Your task to perform on an android device: turn off translation in the chrome app Image 0: 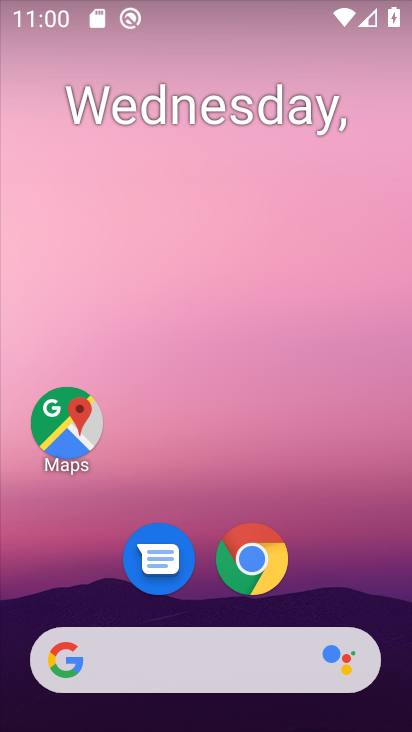
Step 0: press home button
Your task to perform on an android device: turn off translation in the chrome app Image 1: 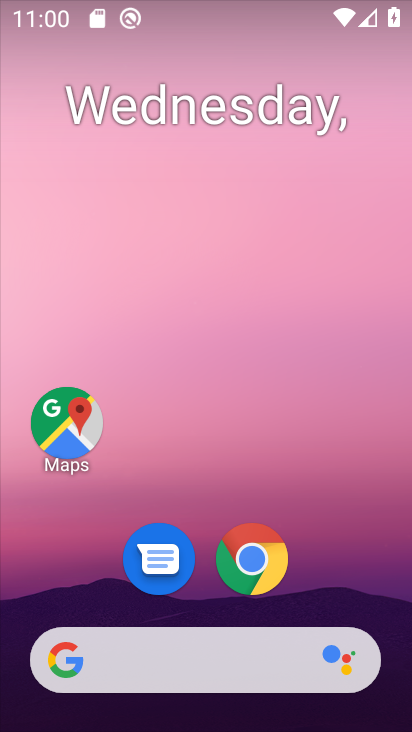
Step 1: drag from (221, 681) to (231, 257)
Your task to perform on an android device: turn off translation in the chrome app Image 2: 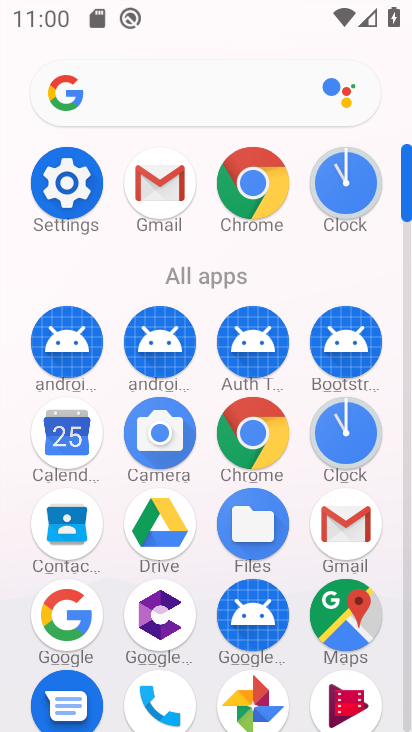
Step 2: click (277, 195)
Your task to perform on an android device: turn off translation in the chrome app Image 3: 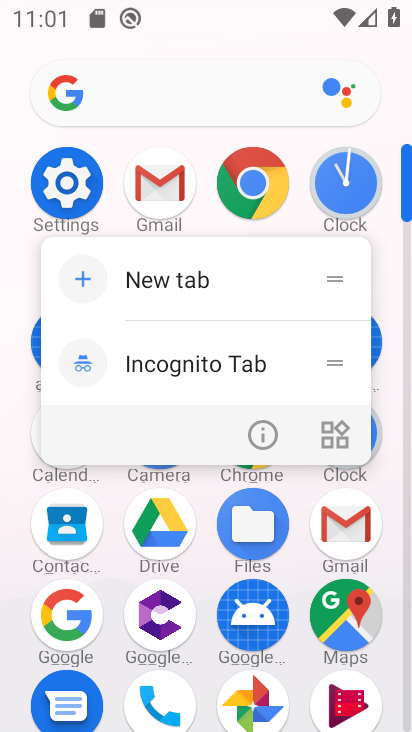
Step 3: click (257, 191)
Your task to perform on an android device: turn off translation in the chrome app Image 4: 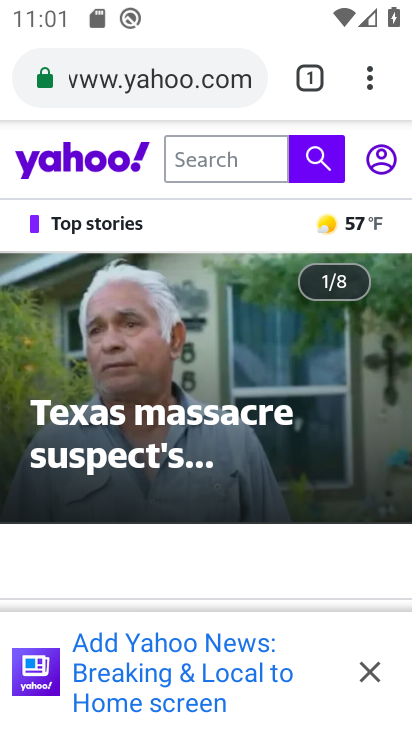
Step 4: click (375, 91)
Your task to perform on an android device: turn off translation in the chrome app Image 5: 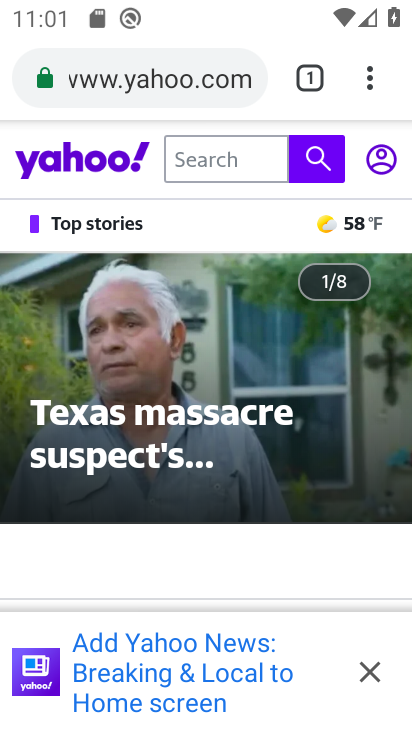
Step 5: click (374, 89)
Your task to perform on an android device: turn off translation in the chrome app Image 6: 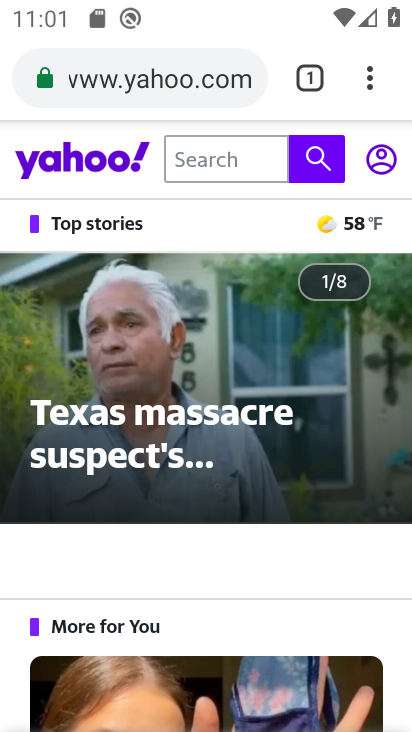
Step 6: click (357, 89)
Your task to perform on an android device: turn off translation in the chrome app Image 7: 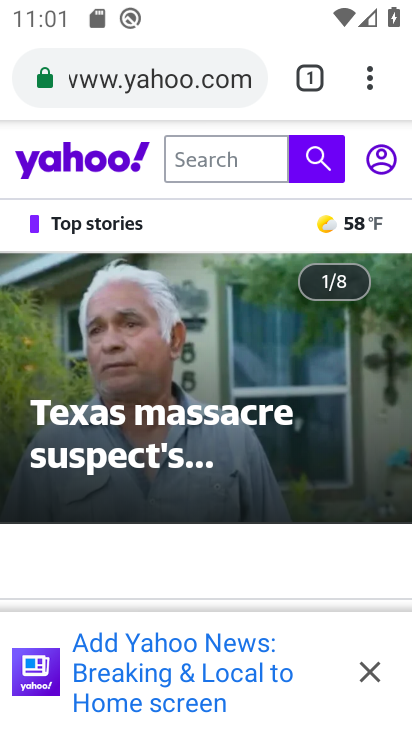
Step 7: click (360, 95)
Your task to perform on an android device: turn off translation in the chrome app Image 8: 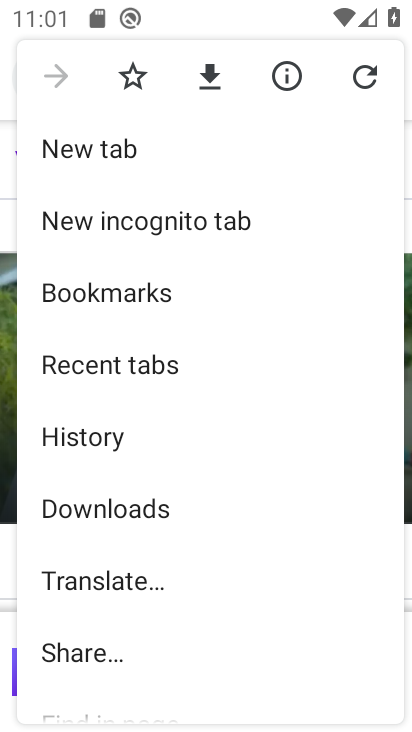
Step 8: drag from (101, 671) to (186, 350)
Your task to perform on an android device: turn off translation in the chrome app Image 9: 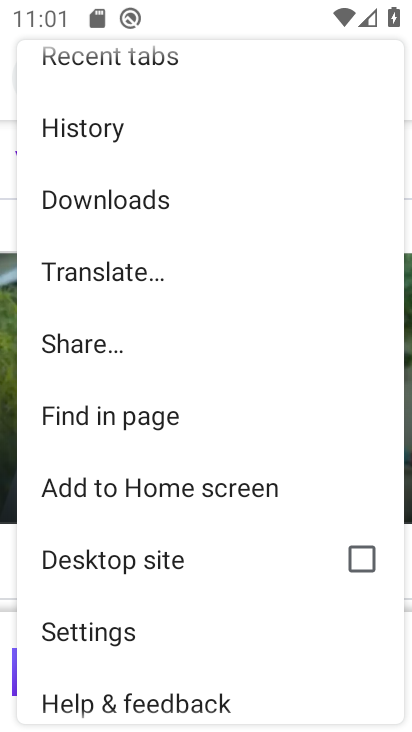
Step 9: click (179, 639)
Your task to perform on an android device: turn off translation in the chrome app Image 10: 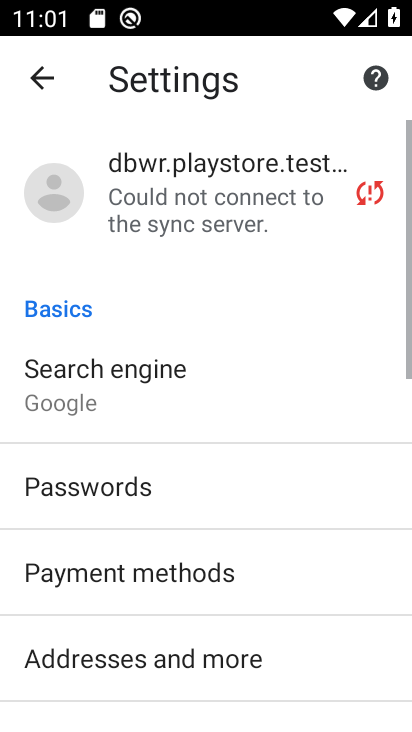
Step 10: drag from (221, 554) to (284, 243)
Your task to perform on an android device: turn off translation in the chrome app Image 11: 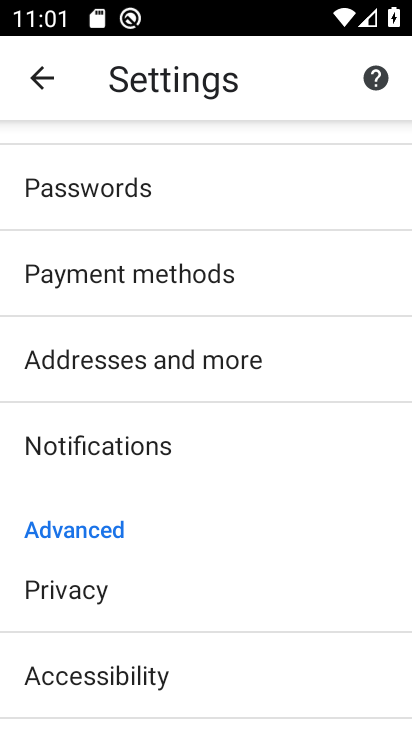
Step 11: drag from (218, 639) to (290, 336)
Your task to perform on an android device: turn off translation in the chrome app Image 12: 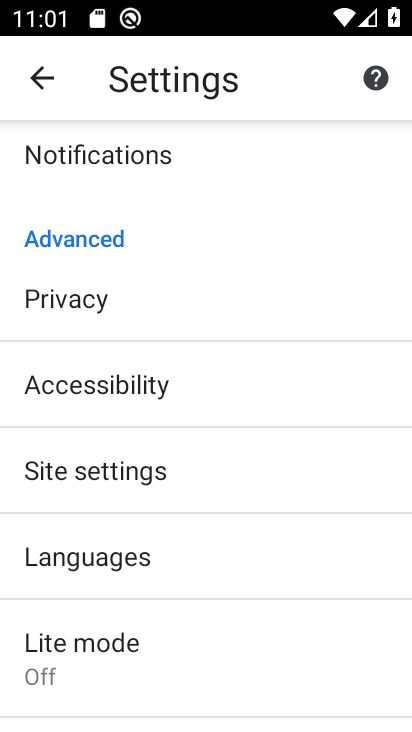
Step 12: click (147, 559)
Your task to perform on an android device: turn off translation in the chrome app Image 13: 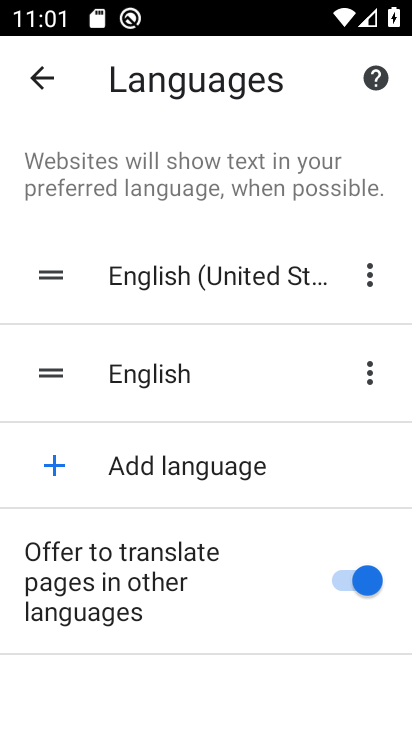
Step 13: click (313, 576)
Your task to perform on an android device: turn off translation in the chrome app Image 14: 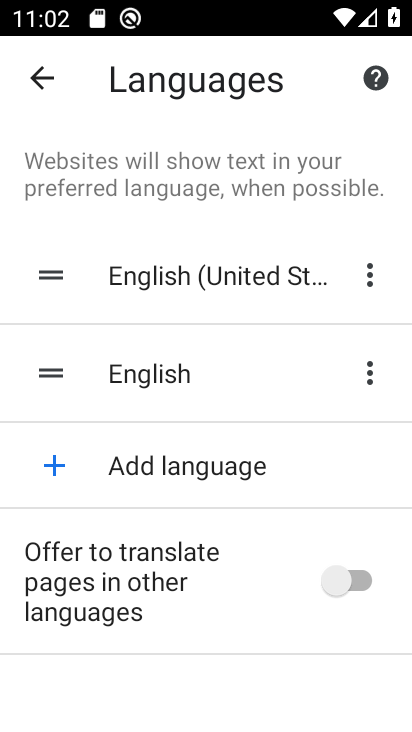
Step 14: task complete